Your task to perform on an android device: Open Wikipedia Image 0: 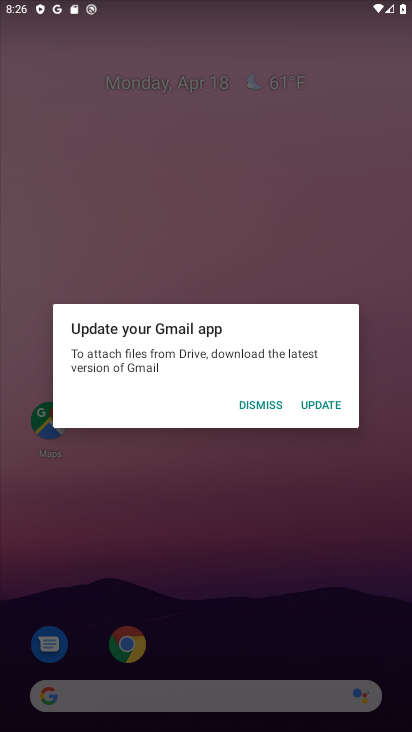
Step 0: press back button
Your task to perform on an android device: Open Wikipedia Image 1: 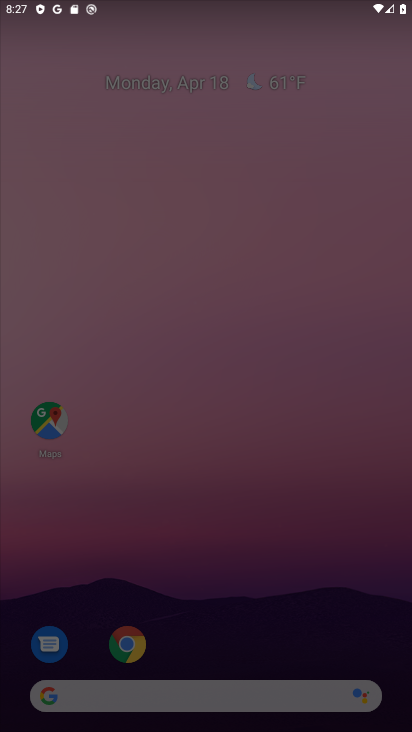
Step 1: press back button
Your task to perform on an android device: Open Wikipedia Image 2: 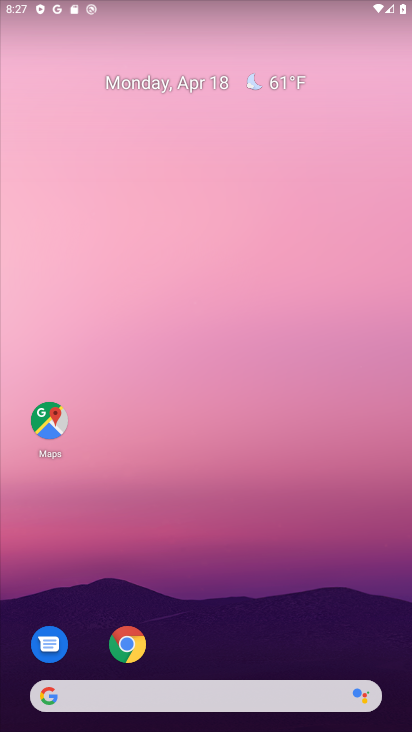
Step 2: click (109, 657)
Your task to perform on an android device: Open Wikipedia Image 3: 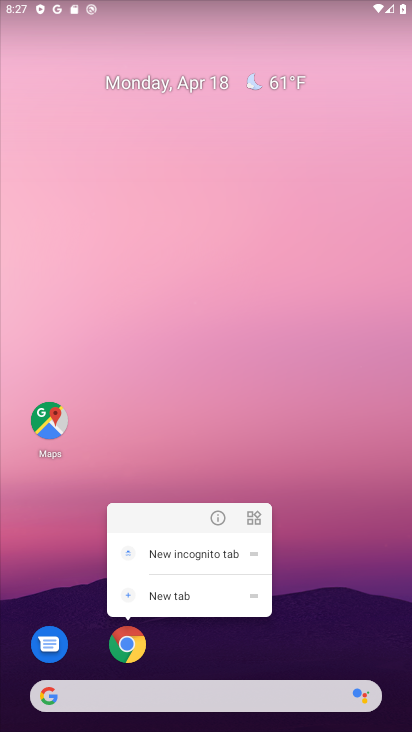
Step 3: click (127, 658)
Your task to perform on an android device: Open Wikipedia Image 4: 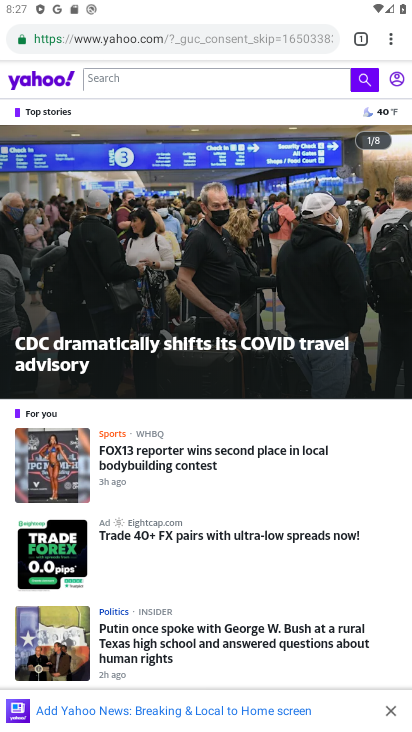
Step 4: click (248, 41)
Your task to perform on an android device: Open Wikipedia Image 5: 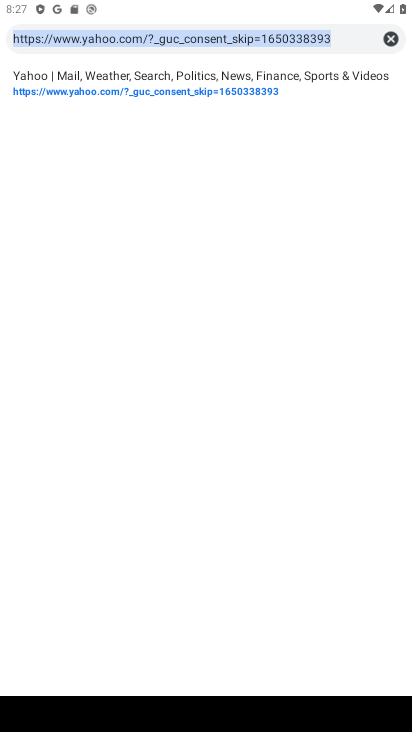
Step 5: type "wikipedia"
Your task to perform on an android device: Open Wikipedia Image 6: 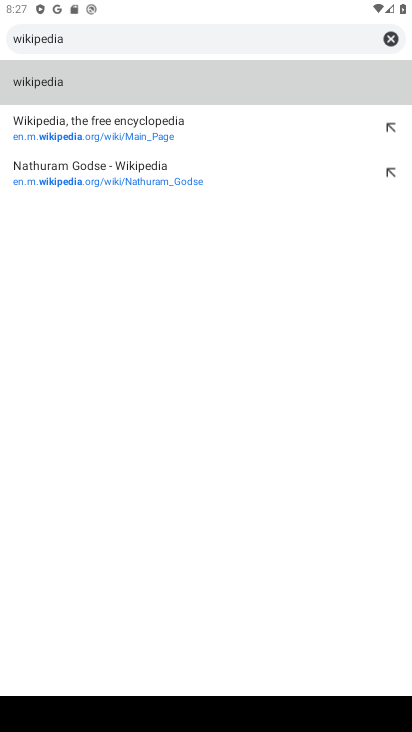
Step 6: click (85, 121)
Your task to perform on an android device: Open Wikipedia Image 7: 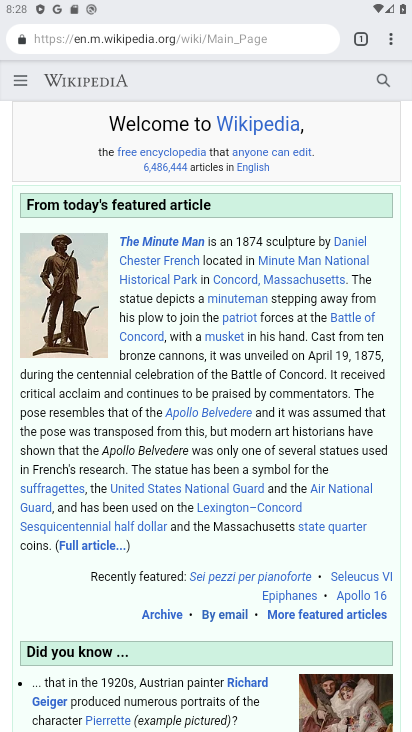
Step 7: task complete